Your task to perform on an android device: toggle priority inbox in the gmail app Image 0: 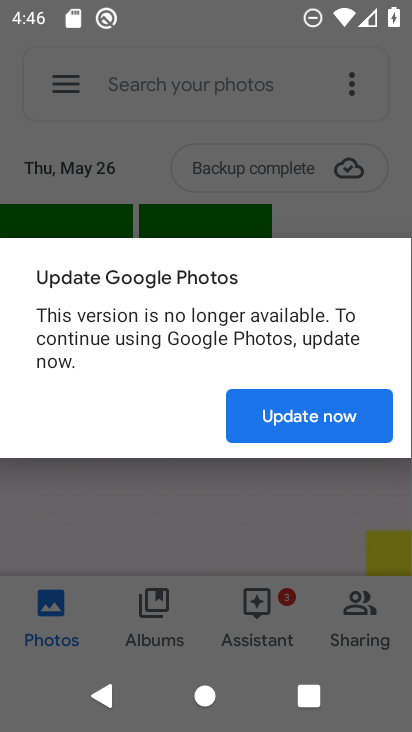
Step 0: press home button
Your task to perform on an android device: toggle priority inbox in the gmail app Image 1: 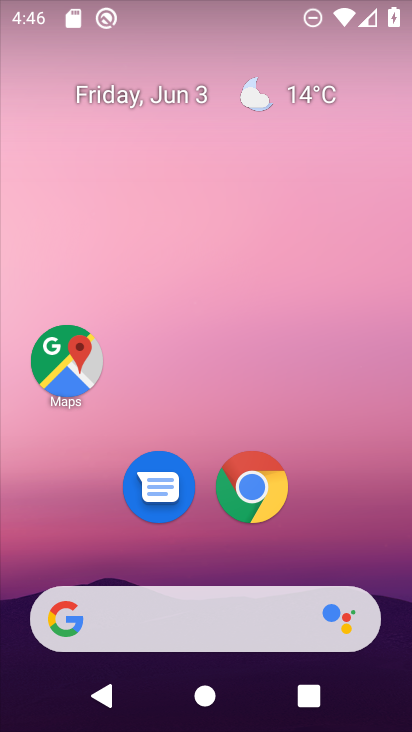
Step 1: drag from (120, 576) to (240, 8)
Your task to perform on an android device: toggle priority inbox in the gmail app Image 2: 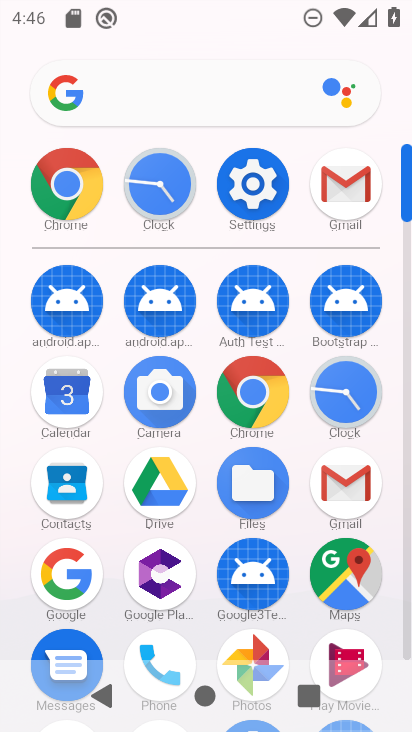
Step 2: click (339, 171)
Your task to perform on an android device: toggle priority inbox in the gmail app Image 3: 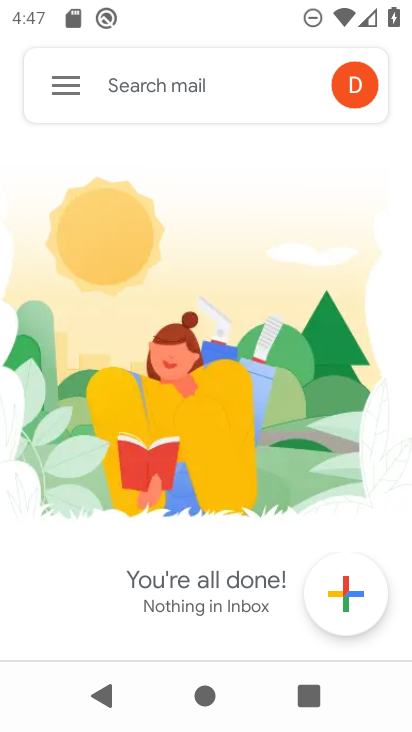
Step 3: click (45, 71)
Your task to perform on an android device: toggle priority inbox in the gmail app Image 4: 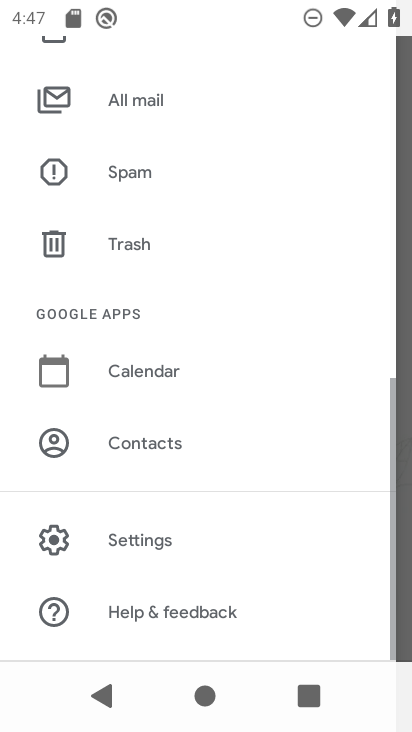
Step 4: click (135, 533)
Your task to perform on an android device: toggle priority inbox in the gmail app Image 5: 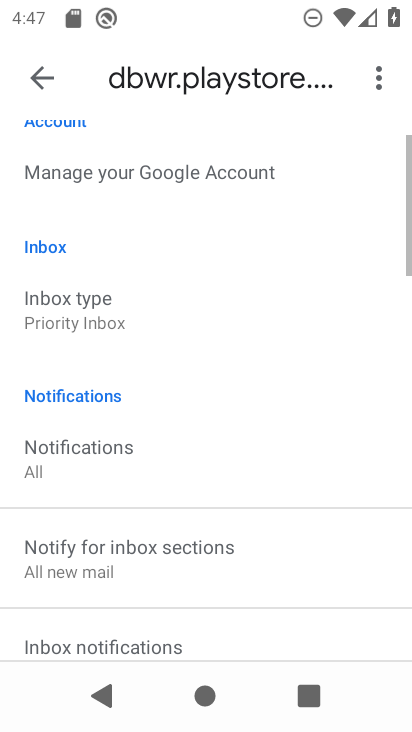
Step 5: click (52, 305)
Your task to perform on an android device: toggle priority inbox in the gmail app Image 6: 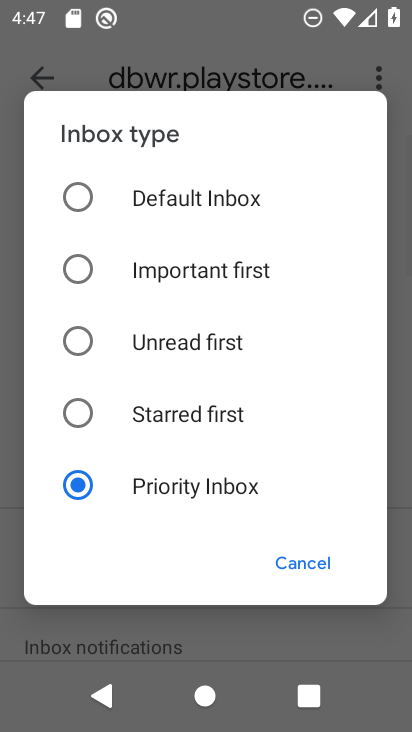
Step 6: click (94, 482)
Your task to perform on an android device: toggle priority inbox in the gmail app Image 7: 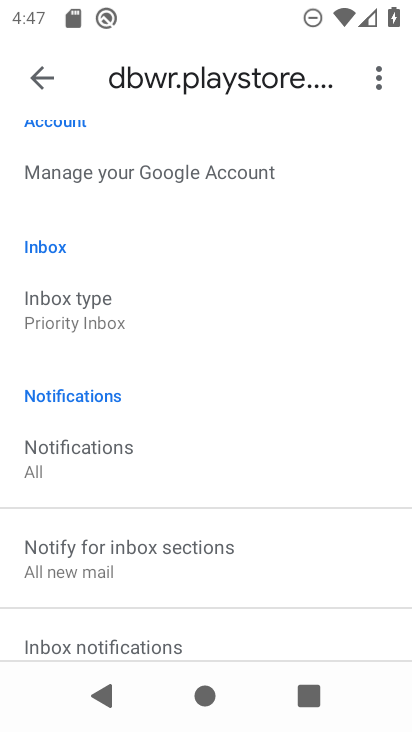
Step 7: task complete